Your task to perform on an android device: Turn off the flashlight Image 0: 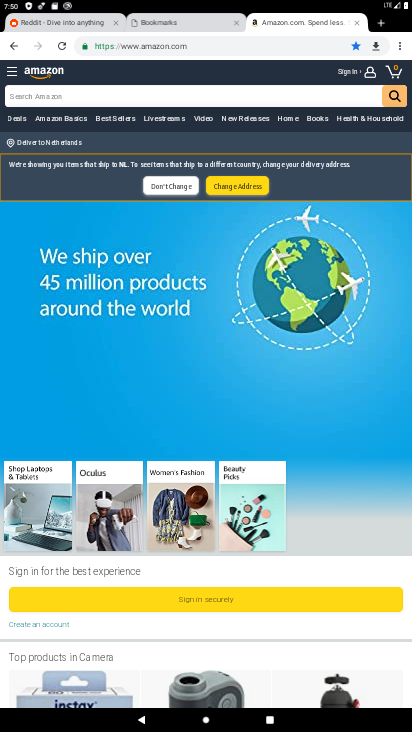
Step 0: press home button
Your task to perform on an android device: Turn off the flashlight Image 1: 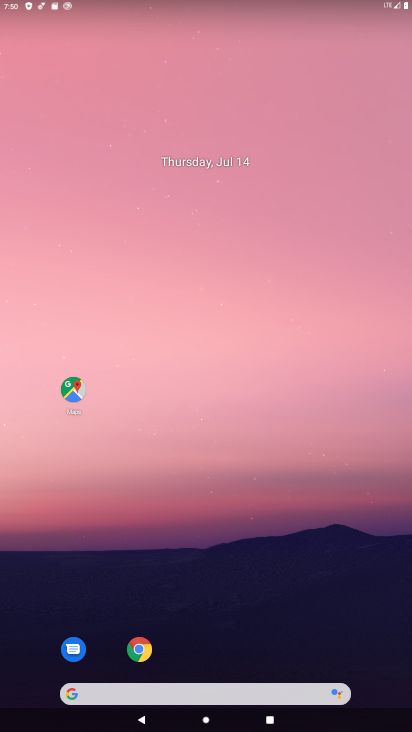
Step 1: drag from (244, 523) to (105, 74)
Your task to perform on an android device: Turn off the flashlight Image 2: 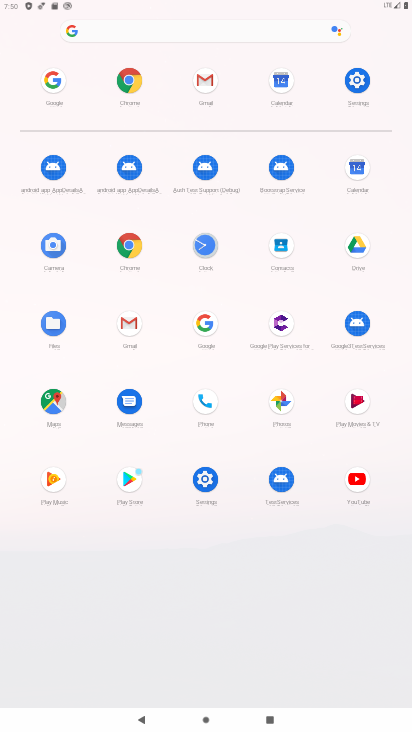
Step 2: click (205, 479)
Your task to perform on an android device: Turn off the flashlight Image 3: 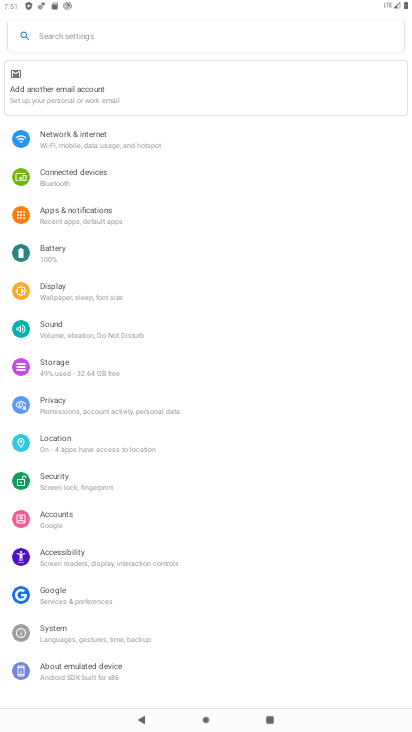
Step 3: task complete